Your task to perform on an android device: What's the weather today? Image 0: 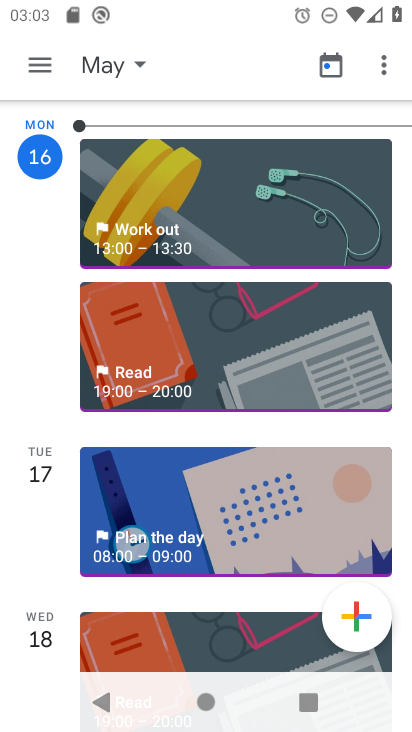
Step 0: press home button
Your task to perform on an android device: What's the weather today? Image 1: 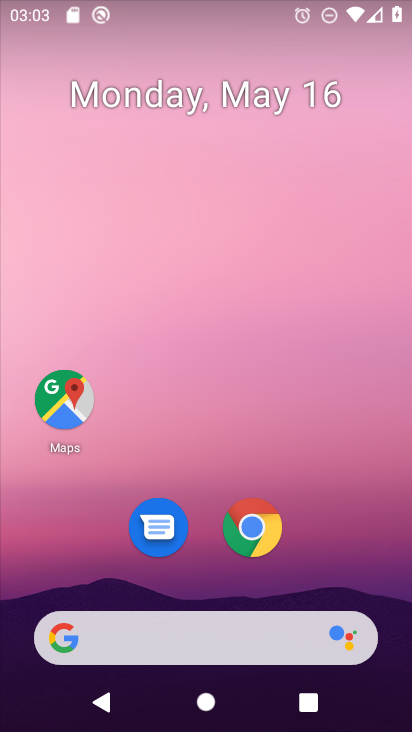
Step 1: click (80, 430)
Your task to perform on an android device: What's the weather today? Image 2: 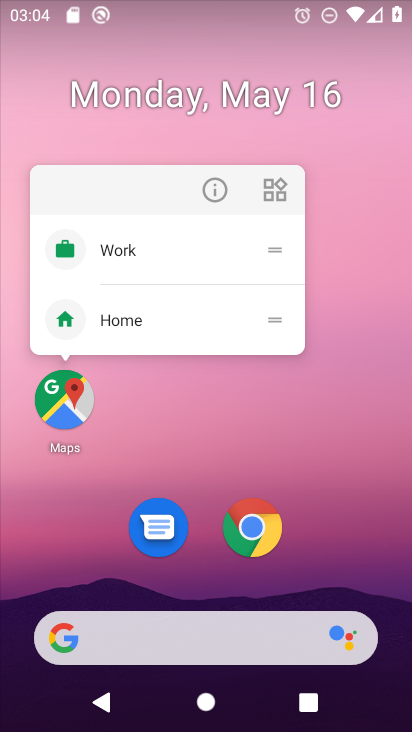
Step 2: click (57, 393)
Your task to perform on an android device: What's the weather today? Image 3: 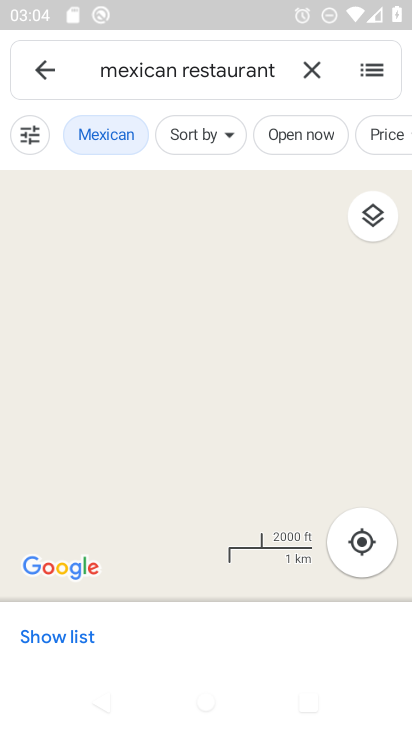
Step 3: click (305, 61)
Your task to perform on an android device: What's the weather today? Image 4: 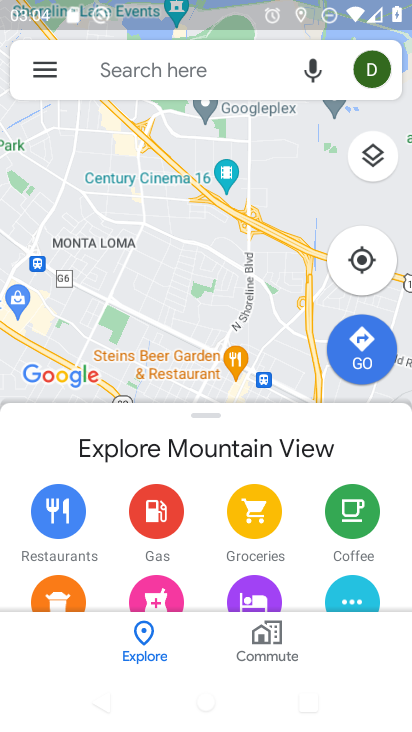
Step 4: press home button
Your task to perform on an android device: What's the weather today? Image 5: 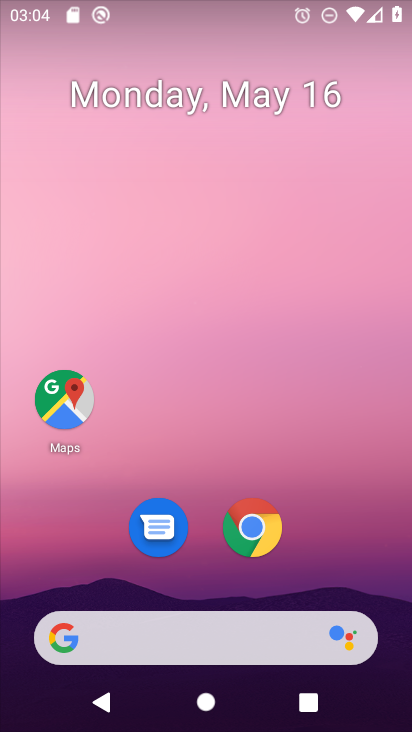
Step 5: click (222, 645)
Your task to perform on an android device: What's the weather today? Image 6: 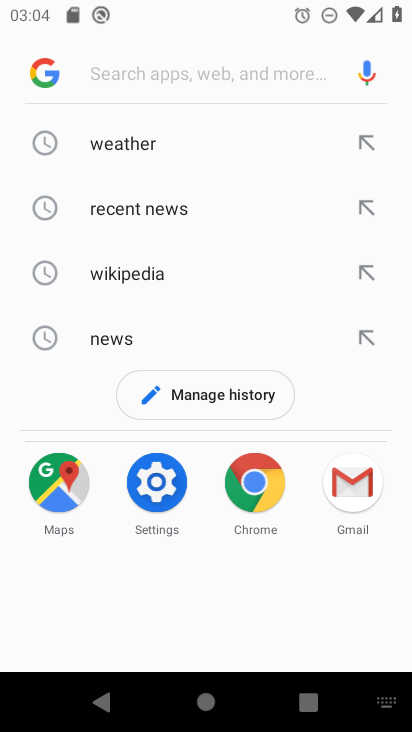
Step 6: click (157, 157)
Your task to perform on an android device: What's the weather today? Image 7: 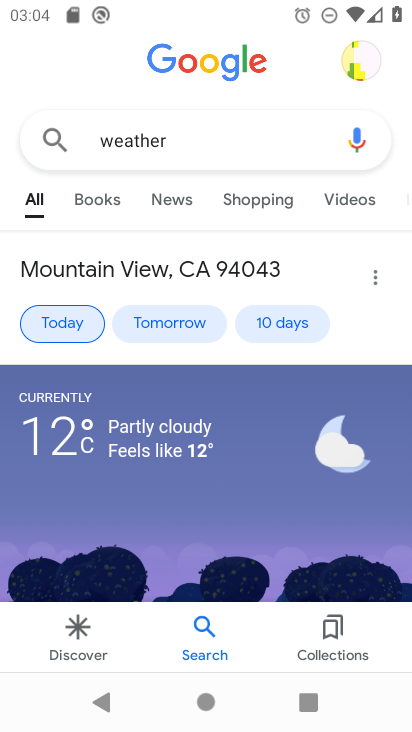
Step 7: task complete